Your task to perform on an android device: Open Google Maps Image 0: 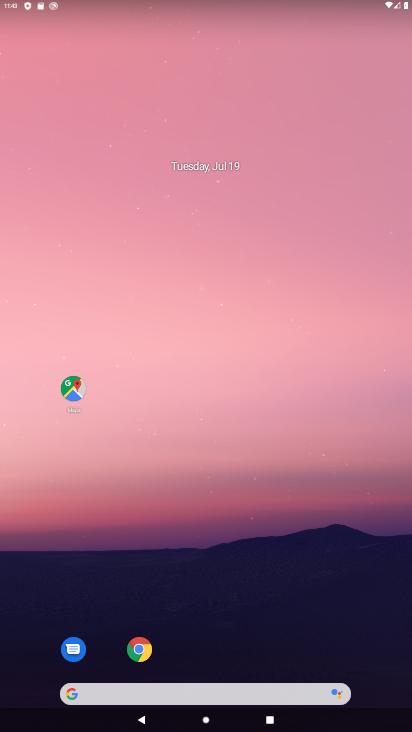
Step 0: click (82, 380)
Your task to perform on an android device: Open Google Maps Image 1: 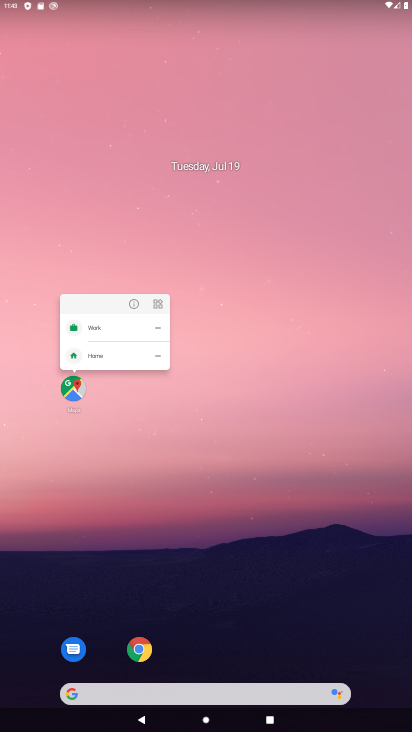
Step 1: click (69, 398)
Your task to perform on an android device: Open Google Maps Image 2: 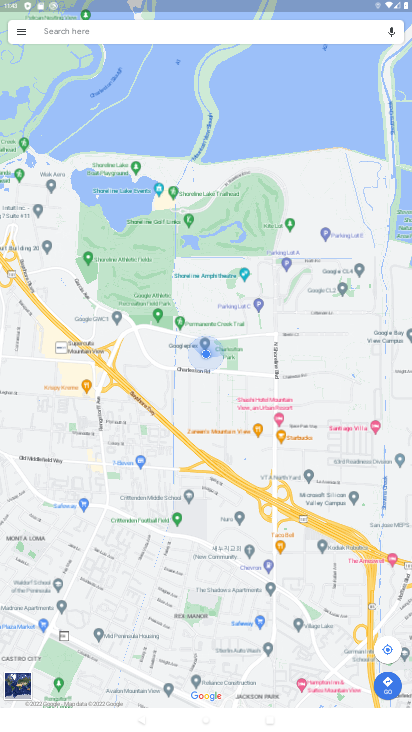
Step 2: task complete